Your task to perform on an android device: change the clock display to digital Image 0: 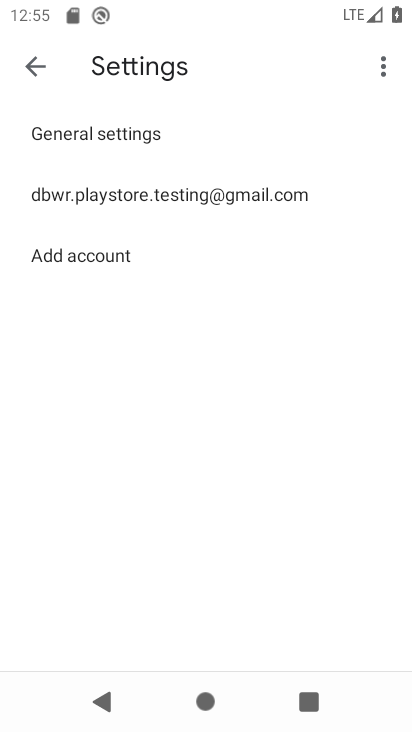
Step 0: press home button
Your task to perform on an android device: change the clock display to digital Image 1: 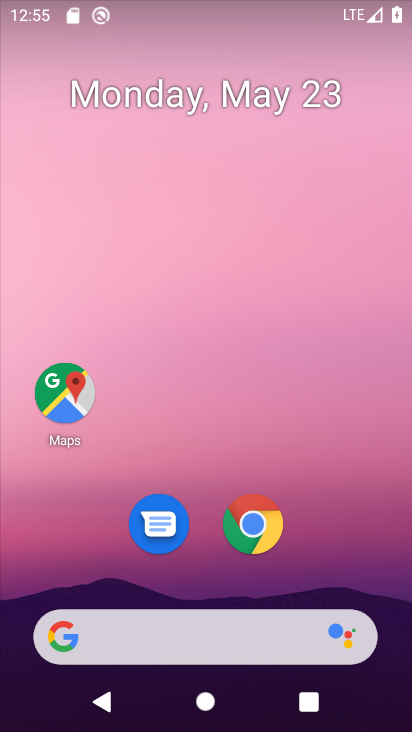
Step 1: drag from (327, 209) to (327, 89)
Your task to perform on an android device: change the clock display to digital Image 2: 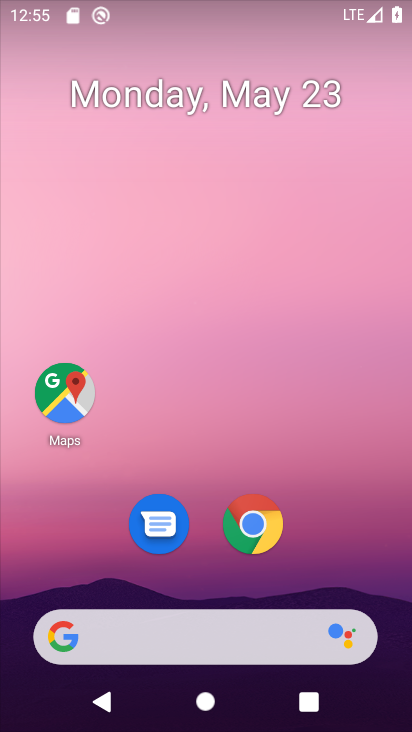
Step 2: drag from (209, 550) to (247, 111)
Your task to perform on an android device: change the clock display to digital Image 3: 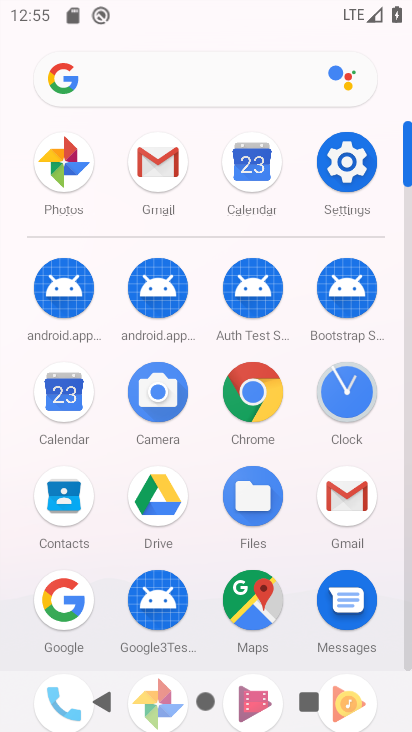
Step 3: click (345, 381)
Your task to perform on an android device: change the clock display to digital Image 4: 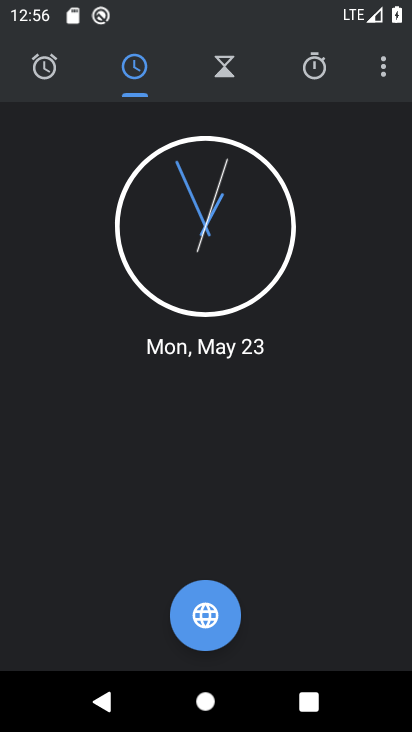
Step 4: click (377, 70)
Your task to perform on an android device: change the clock display to digital Image 5: 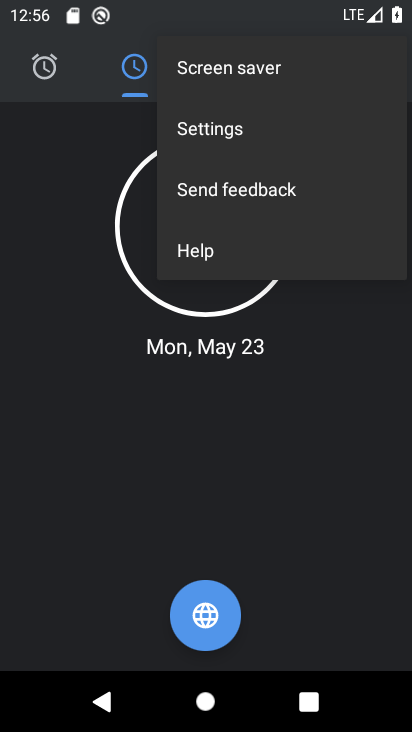
Step 5: click (327, 125)
Your task to perform on an android device: change the clock display to digital Image 6: 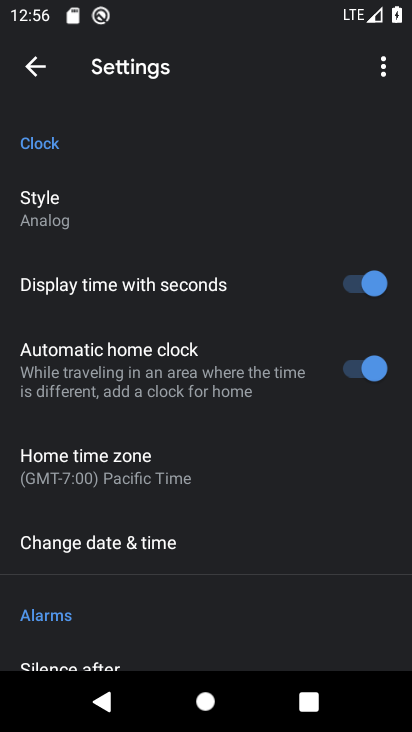
Step 6: click (125, 207)
Your task to perform on an android device: change the clock display to digital Image 7: 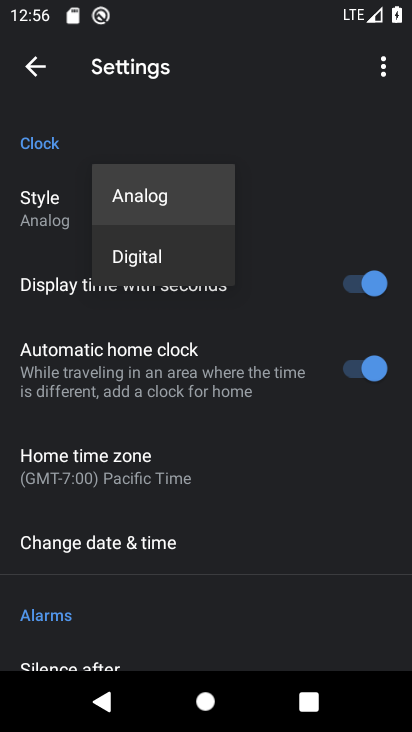
Step 7: click (147, 247)
Your task to perform on an android device: change the clock display to digital Image 8: 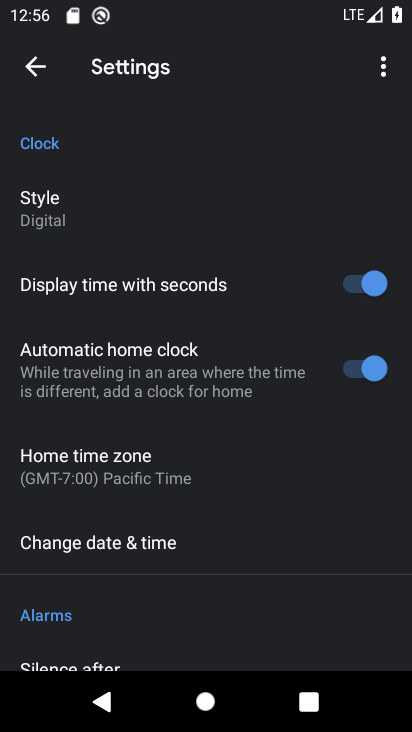
Step 8: task complete